Your task to perform on an android device: add a contact Image 0: 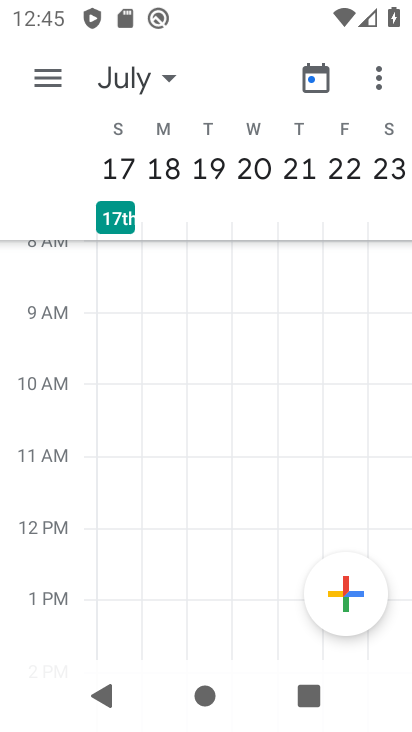
Step 0: press back button
Your task to perform on an android device: add a contact Image 1: 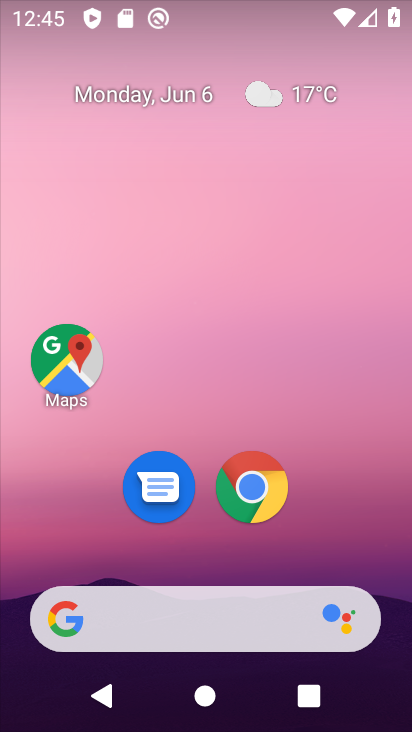
Step 1: drag from (344, 557) to (216, 101)
Your task to perform on an android device: add a contact Image 2: 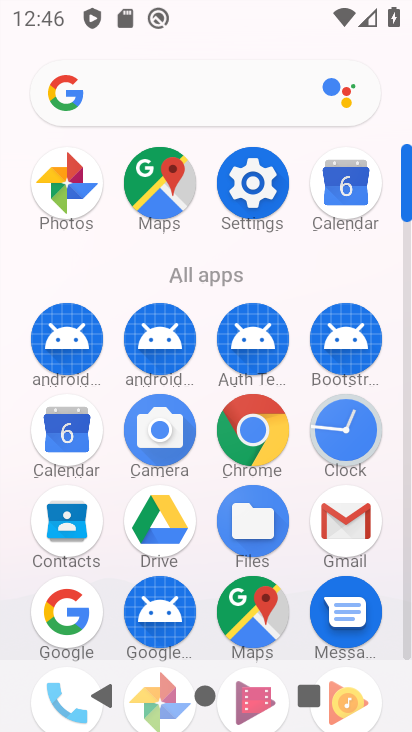
Step 2: click (67, 524)
Your task to perform on an android device: add a contact Image 3: 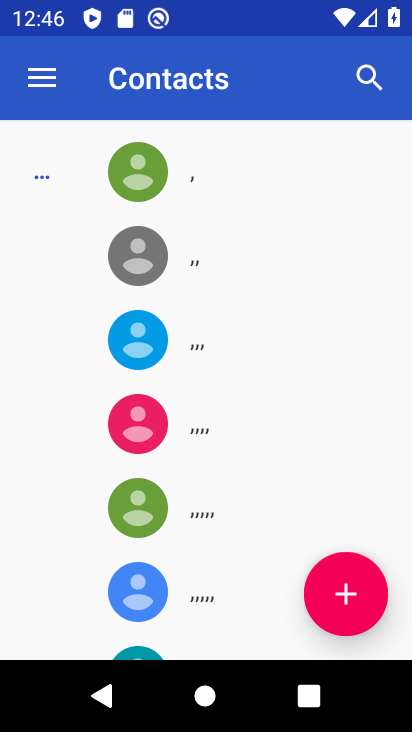
Step 3: click (345, 590)
Your task to perform on an android device: add a contact Image 4: 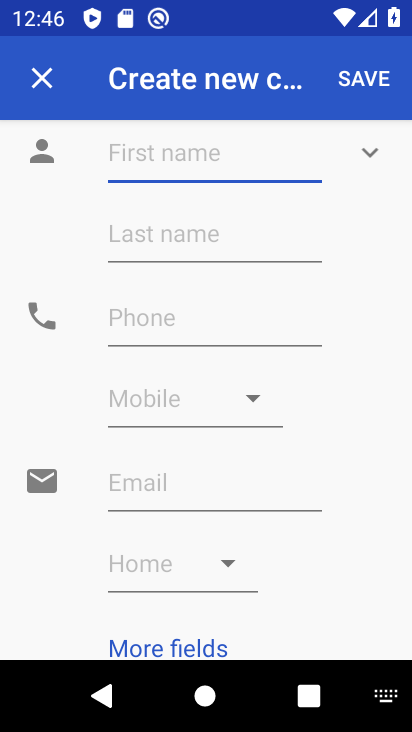
Step 4: click (213, 163)
Your task to perform on an android device: add a contact Image 5: 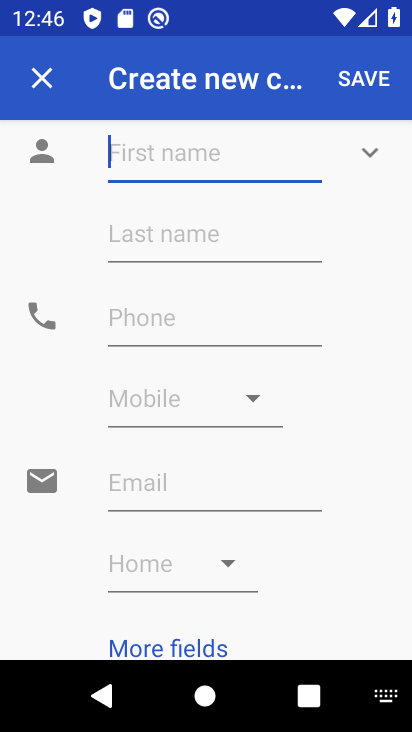
Step 5: type "Joseph"
Your task to perform on an android device: add a contact Image 6: 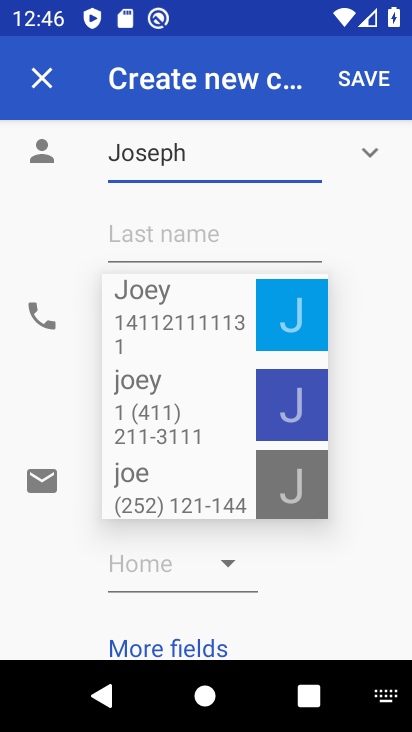
Step 6: click (207, 248)
Your task to perform on an android device: add a contact Image 7: 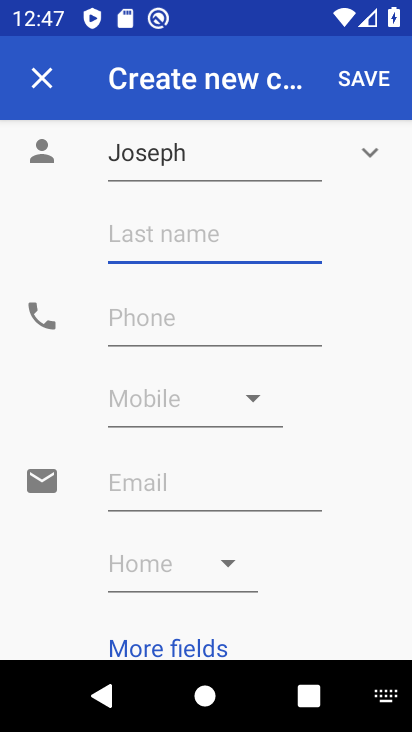
Step 7: type "Yusuf"
Your task to perform on an android device: add a contact Image 8: 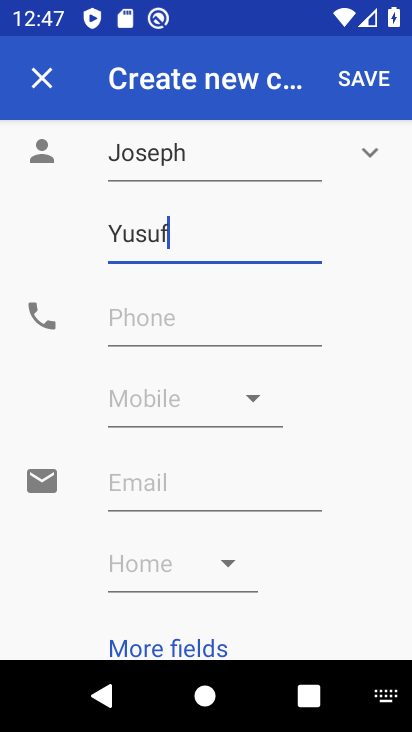
Step 8: click (204, 342)
Your task to perform on an android device: add a contact Image 9: 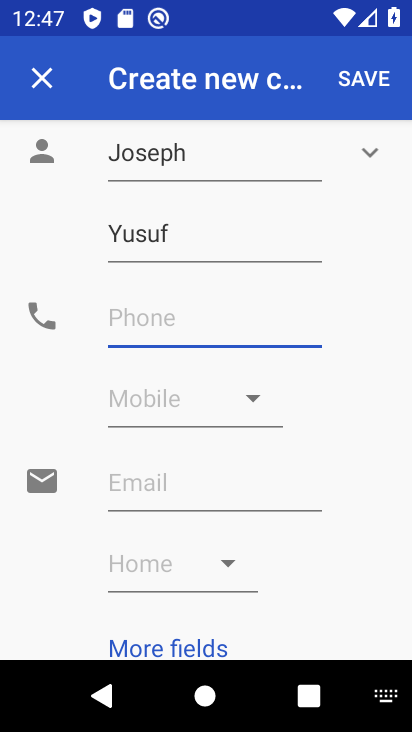
Step 9: click (208, 336)
Your task to perform on an android device: add a contact Image 10: 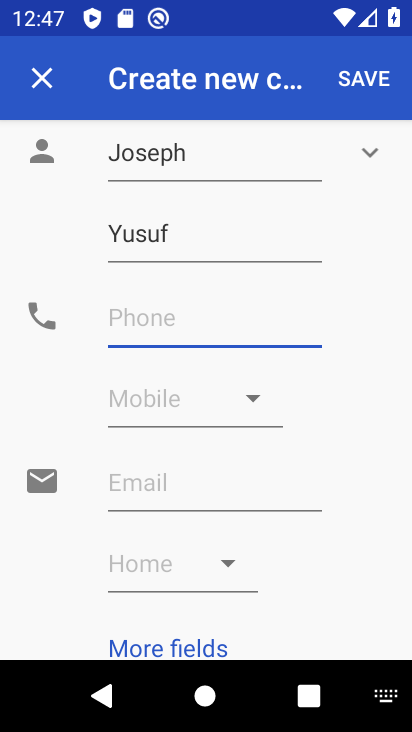
Step 10: type "0998765125"
Your task to perform on an android device: add a contact Image 11: 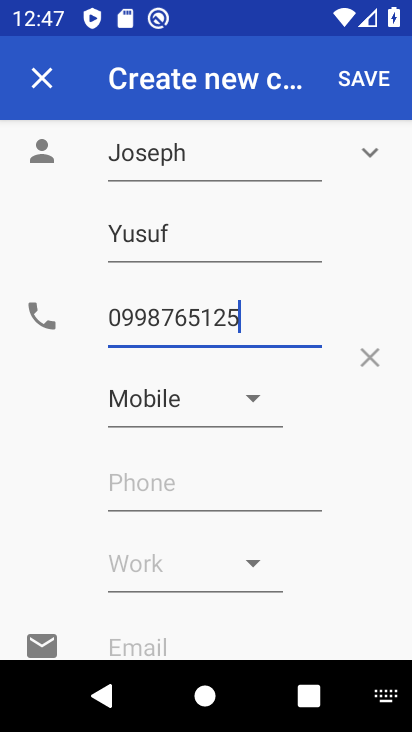
Step 11: click (356, 71)
Your task to perform on an android device: add a contact Image 12: 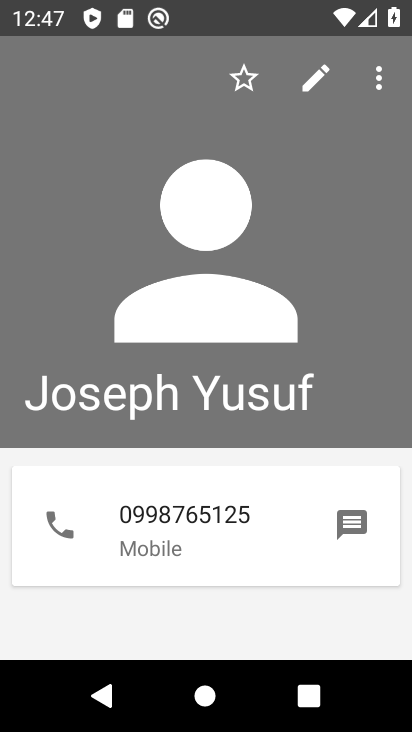
Step 12: task complete